Your task to perform on an android device: Open maps Image 0: 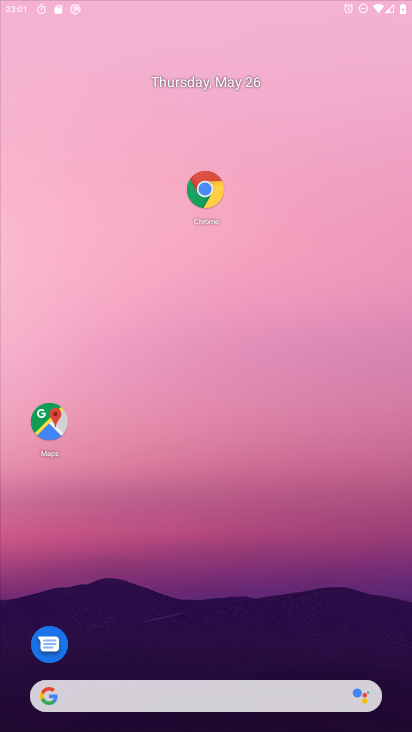
Step 0: click (225, 411)
Your task to perform on an android device: Open maps Image 1: 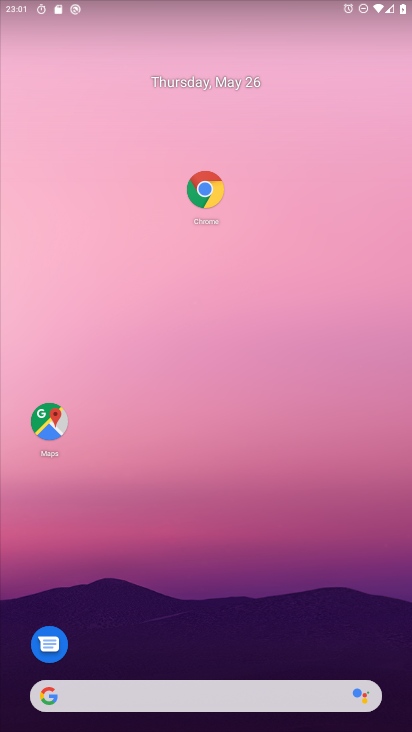
Step 1: drag from (169, 636) to (271, 176)
Your task to perform on an android device: Open maps Image 2: 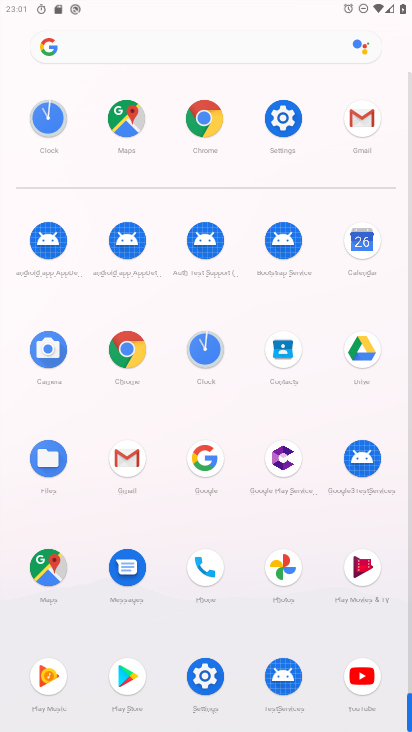
Step 2: click (41, 549)
Your task to perform on an android device: Open maps Image 3: 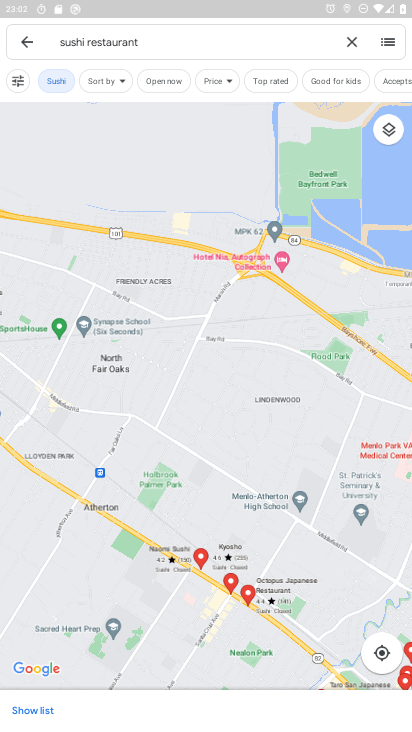
Step 3: task complete